Your task to perform on an android device: Open internet settings Image 0: 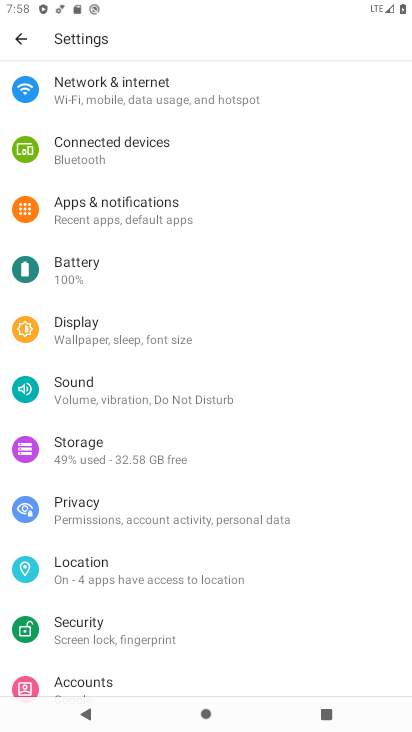
Step 0: click (183, 94)
Your task to perform on an android device: Open internet settings Image 1: 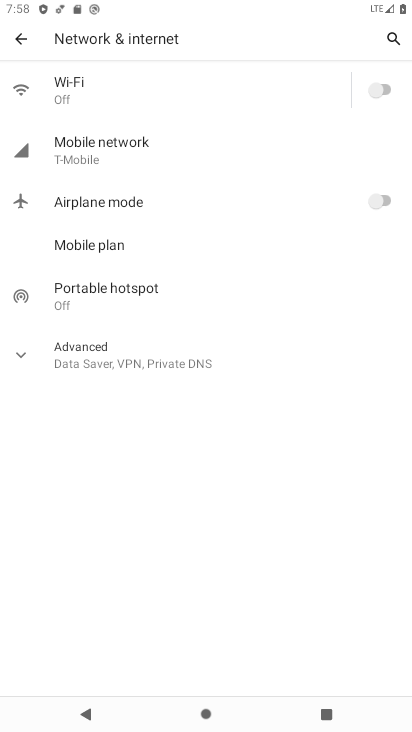
Step 1: task complete